Your task to perform on an android device: search for starred emails in the gmail app Image 0: 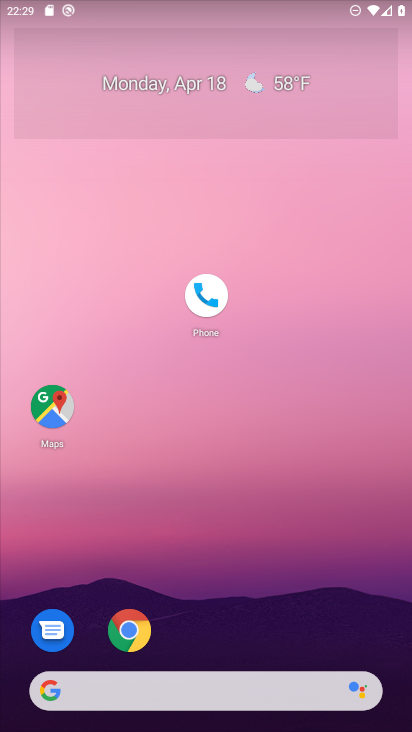
Step 0: drag from (286, 567) to (236, 55)
Your task to perform on an android device: search for starred emails in the gmail app Image 1: 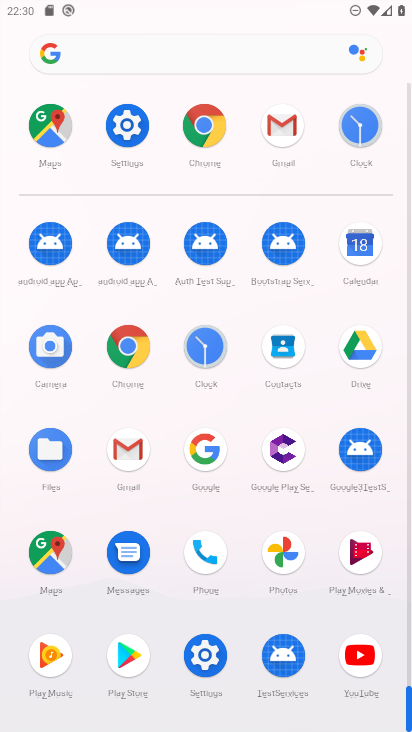
Step 1: click (136, 437)
Your task to perform on an android device: search for starred emails in the gmail app Image 2: 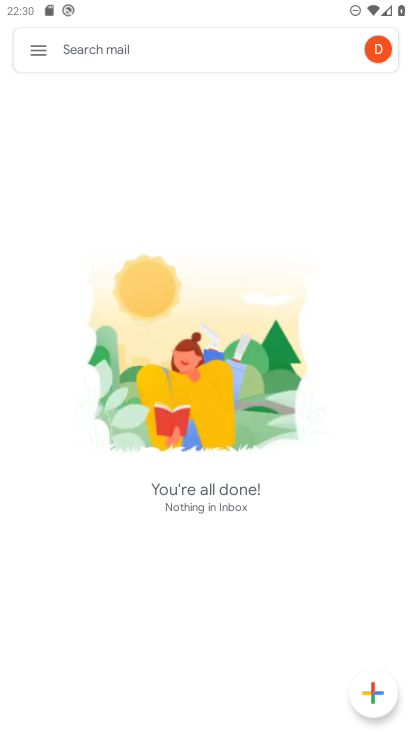
Step 2: click (31, 45)
Your task to perform on an android device: search for starred emails in the gmail app Image 3: 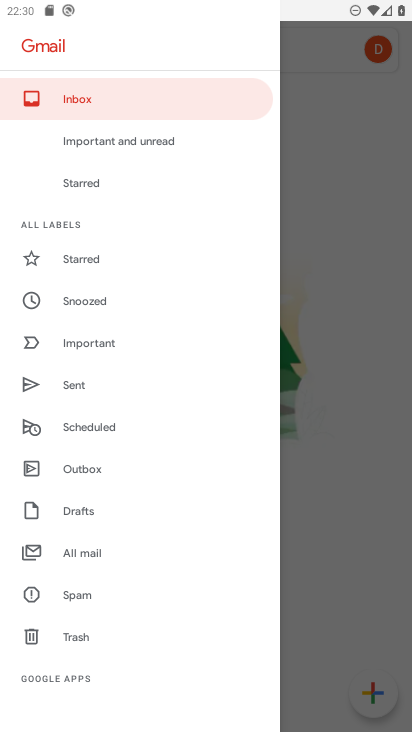
Step 3: click (101, 190)
Your task to perform on an android device: search for starred emails in the gmail app Image 4: 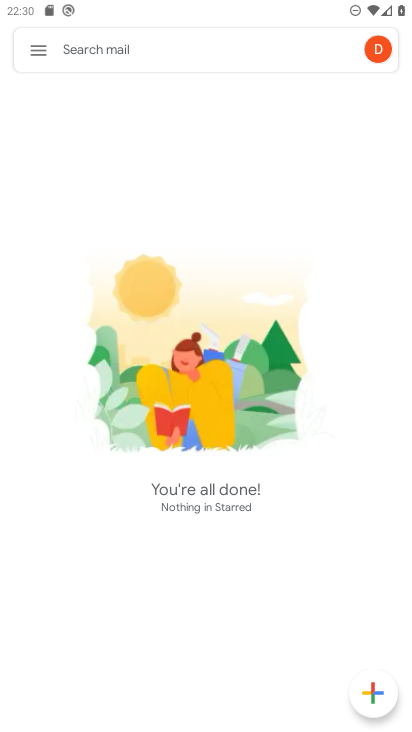
Step 4: task complete